Your task to perform on an android device: Find coffee shops on Maps Image 0: 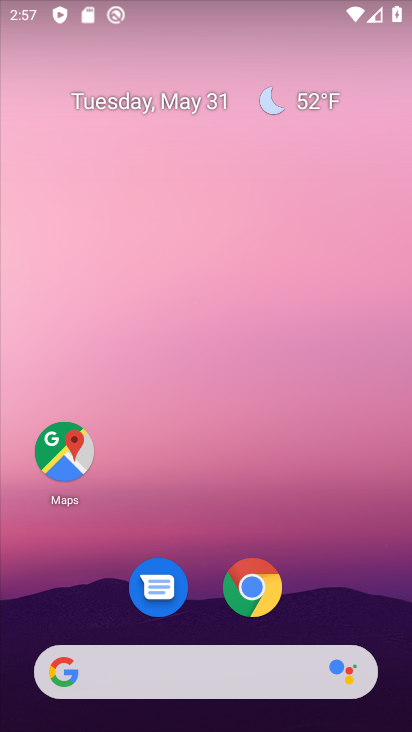
Step 0: drag from (369, 609) to (257, 70)
Your task to perform on an android device: Find coffee shops on Maps Image 1: 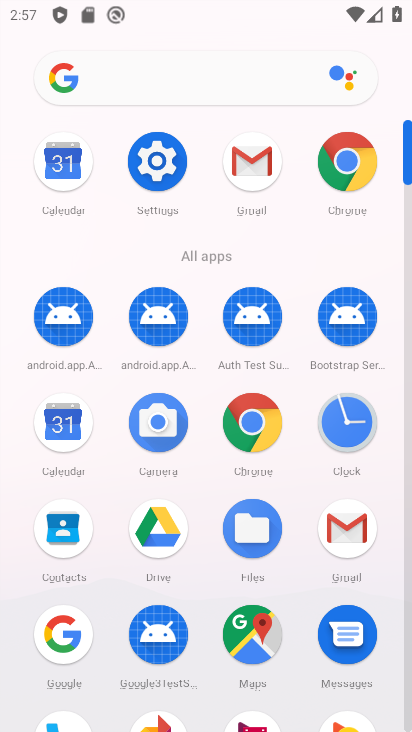
Step 1: click (256, 630)
Your task to perform on an android device: Find coffee shops on Maps Image 2: 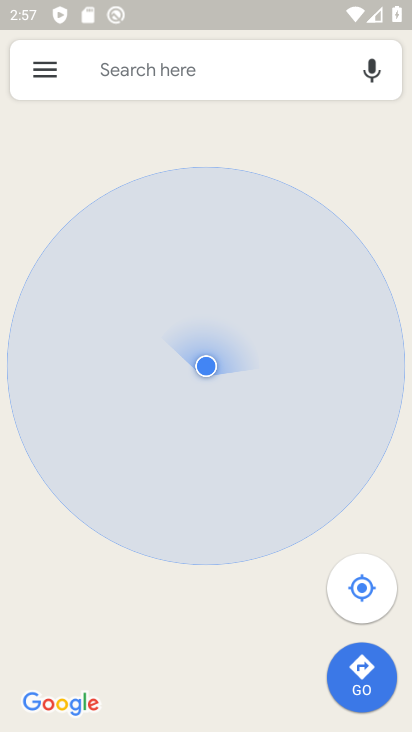
Step 2: click (231, 50)
Your task to perform on an android device: Find coffee shops on Maps Image 3: 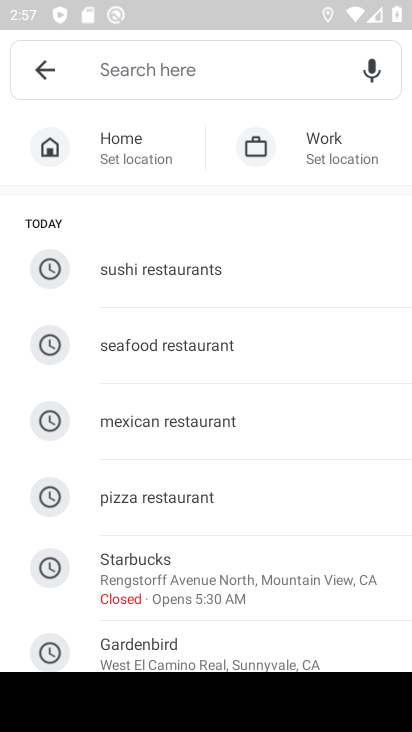
Step 3: type "coffee shops"
Your task to perform on an android device: Find coffee shops on Maps Image 4: 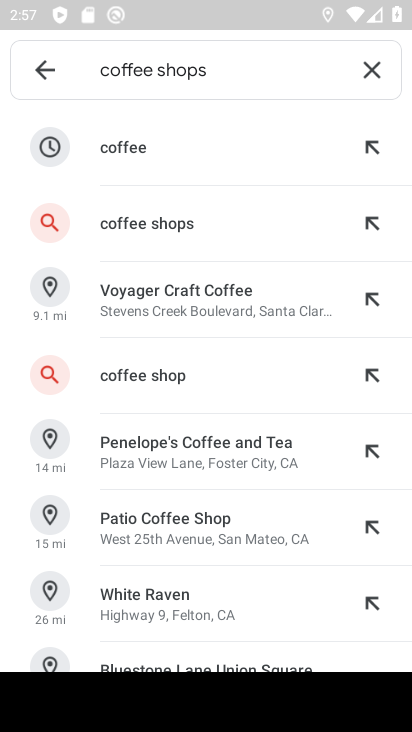
Step 4: click (181, 222)
Your task to perform on an android device: Find coffee shops on Maps Image 5: 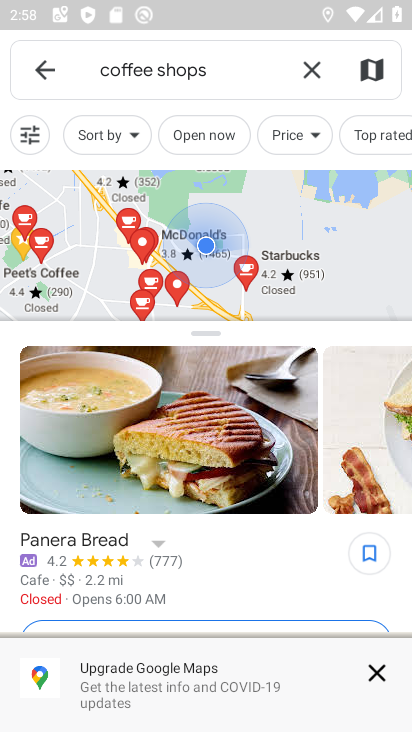
Step 5: task complete